Your task to perform on an android device: turn on sleep mode Image 0: 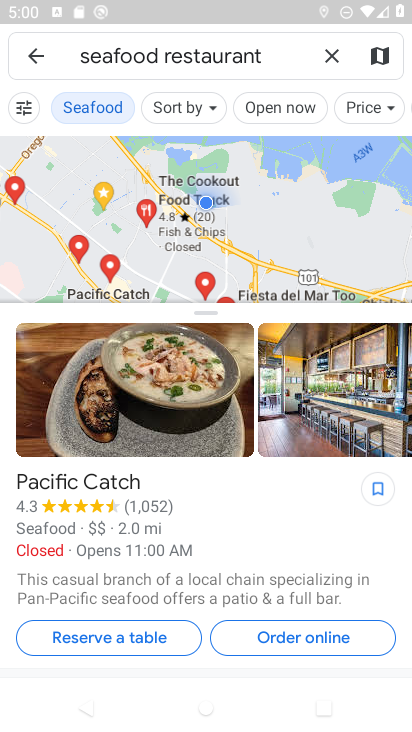
Step 0: task complete